Your task to perform on an android device: Open network settings Image 0: 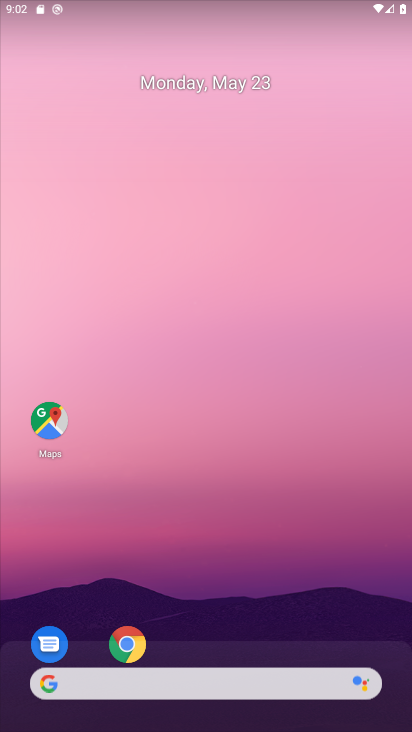
Step 0: drag from (295, 695) to (214, 302)
Your task to perform on an android device: Open network settings Image 1: 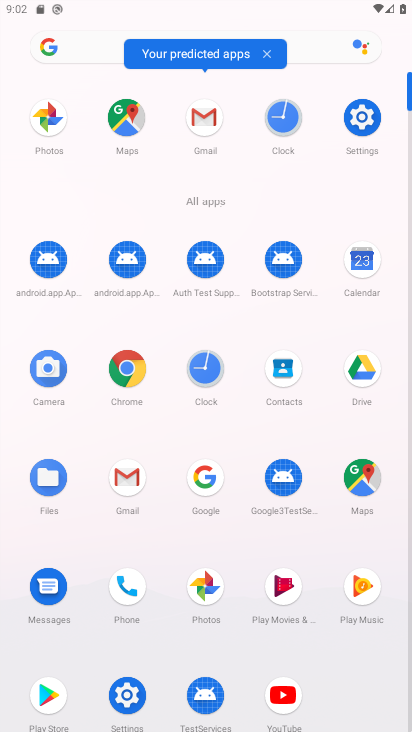
Step 1: click (119, 687)
Your task to perform on an android device: Open network settings Image 2: 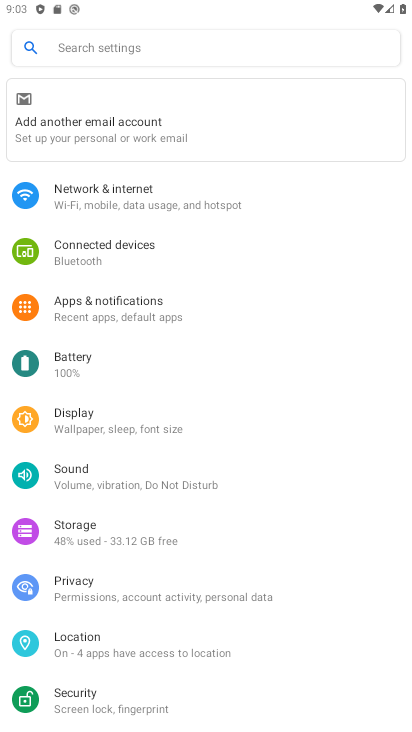
Step 2: click (133, 207)
Your task to perform on an android device: Open network settings Image 3: 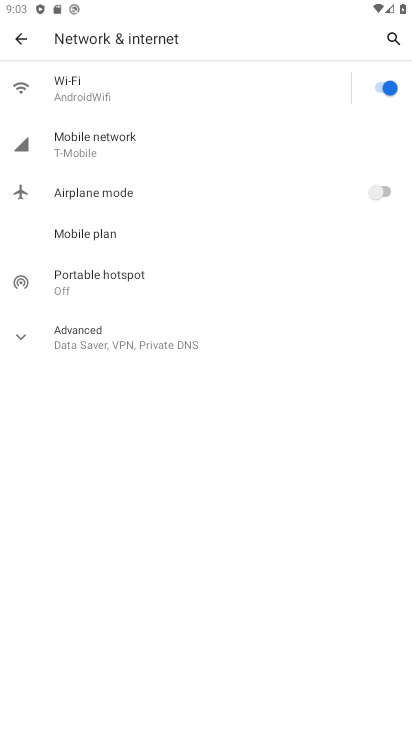
Step 3: task complete